Your task to perform on an android device: turn on sleep mode Image 0: 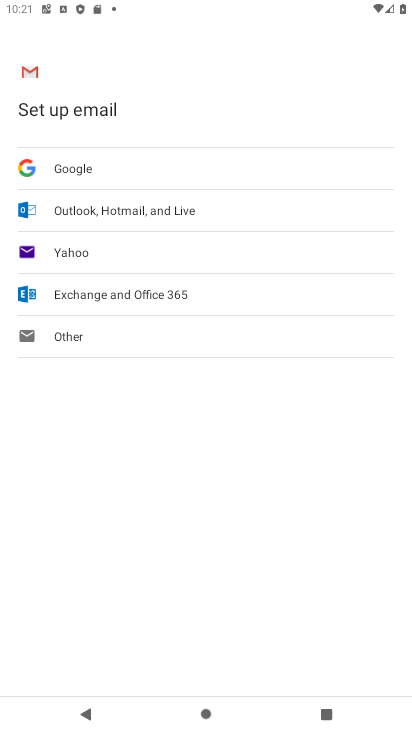
Step 0: task impossible